Your task to perform on an android device: Open location settings Image 0: 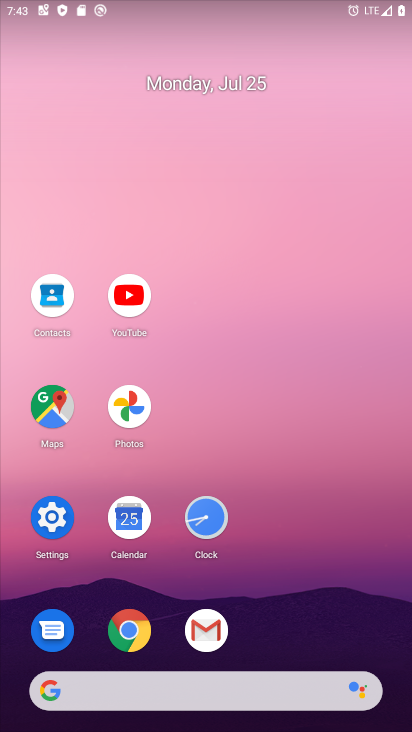
Step 0: click (44, 515)
Your task to perform on an android device: Open location settings Image 1: 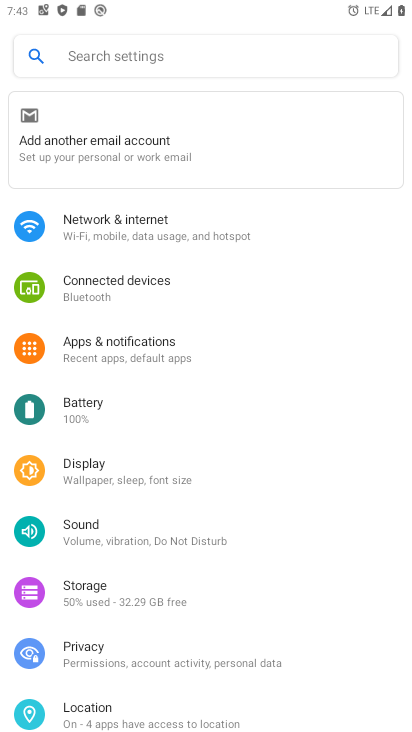
Step 1: click (84, 704)
Your task to perform on an android device: Open location settings Image 2: 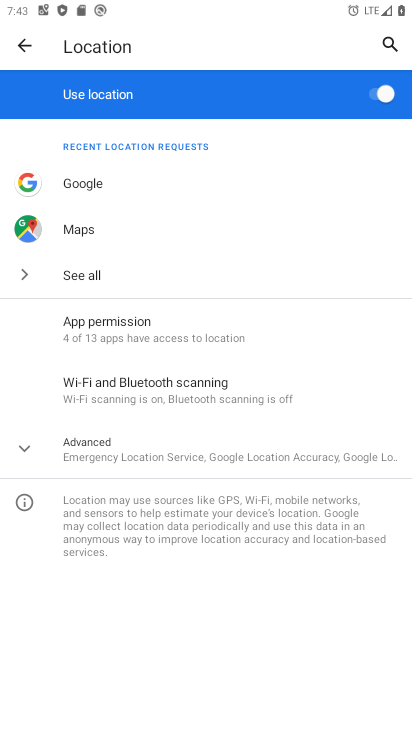
Step 2: task complete